Your task to perform on an android device: What's on my calendar today? Image 0: 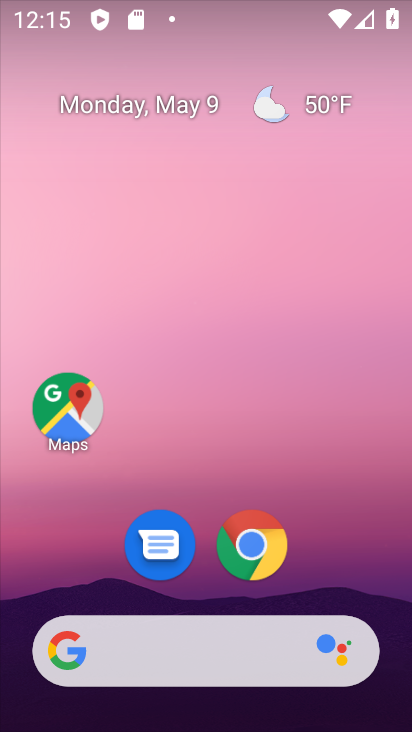
Step 0: drag from (193, 570) to (193, 149)
Your task to perform on an android device: What's on my calendar today? Image 1: 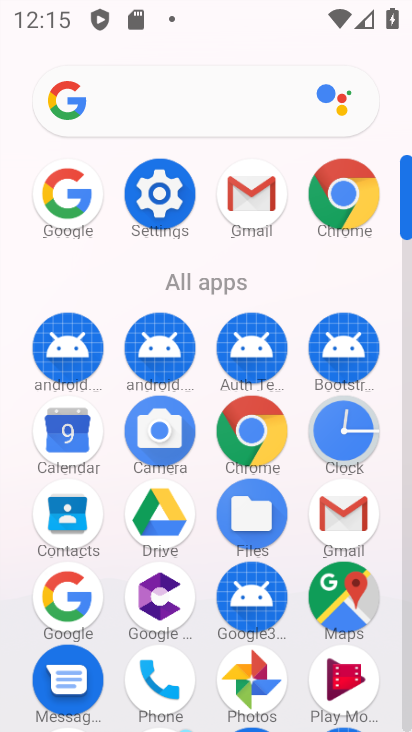
Step 1: drag from (276, 585) to (273, 272)
Your task to perform on an android device: What's on my calendar today? Image 2: 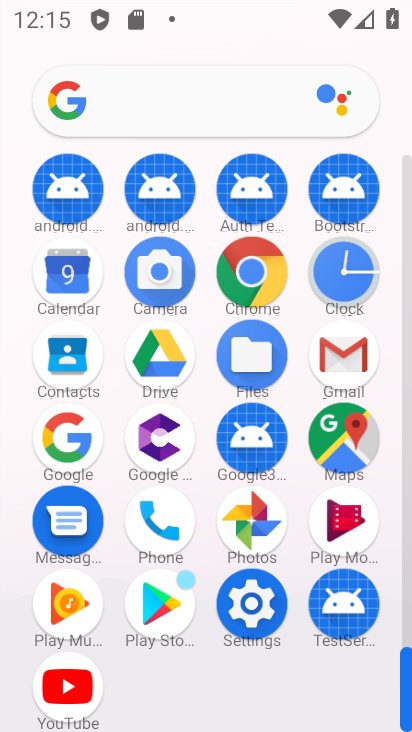
Step 2: drag from (193, 320) to (218, 552)
Your task to perform on an android device: What's on my calendar today? Image 3: 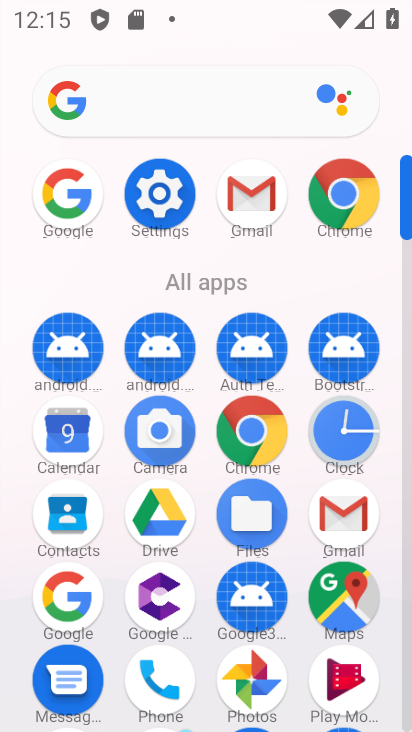
Step 3: drag from (196, 318) to (200, 563)
Your task to perform on an android device: What's on my calendar today? Image 4: 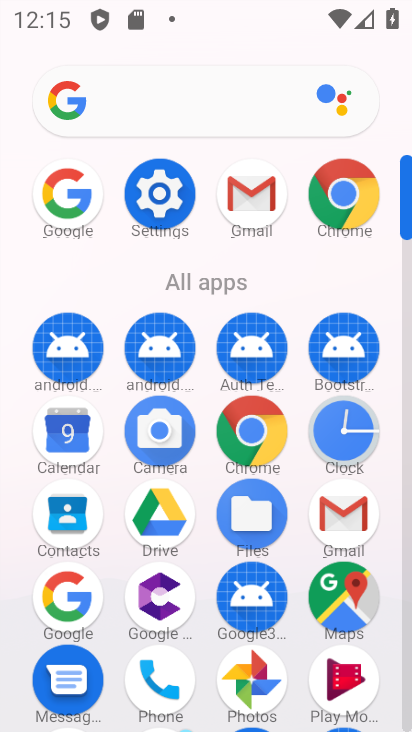
Step 4: drag from (184, 614) to (213, 324)
Your task to perform on an android device: What's on my calendar today? Image 5: 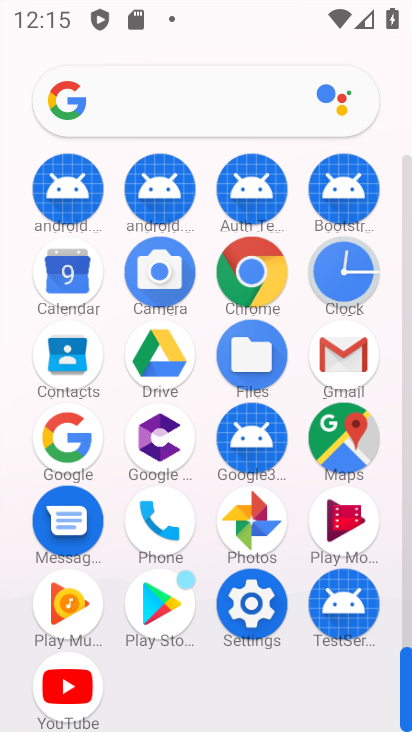
Step 5: drag from (199, 288) to (210, 514)
Your task to perform on an android device: What's on my calendar today? Image 6: 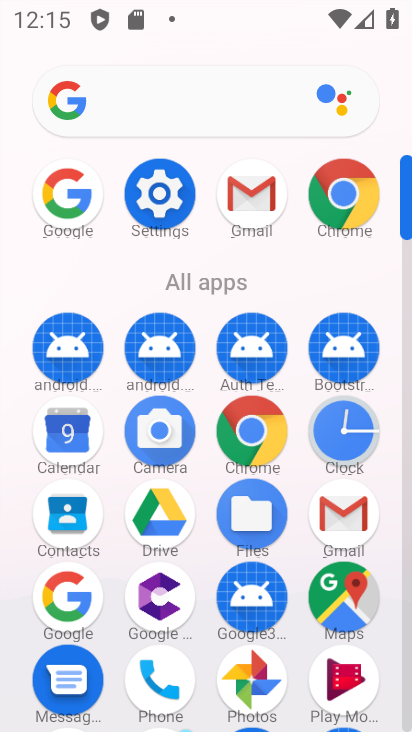
Step 6: drag from (209, 323) to (232, 383)
Your task to perform on an android device: What's on my calendar today? Image 7: 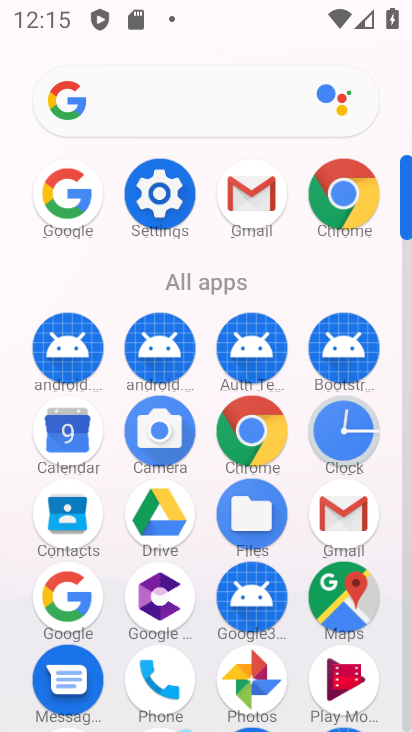
Step 7: click (45, 491)
Your task to perform on an android device: What's on my calendar today? Image 8: 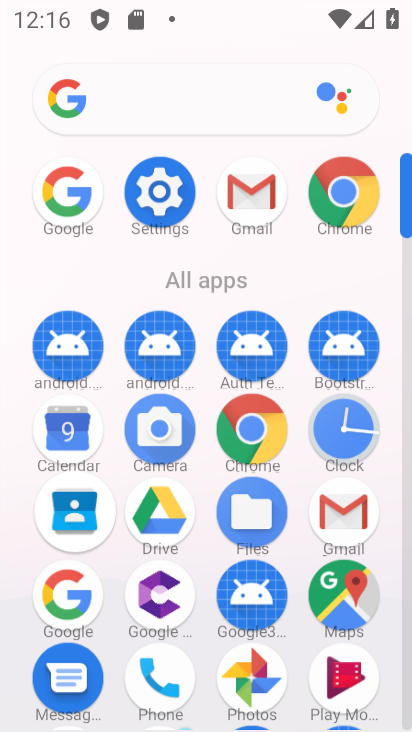
Step 8: click (47, 457)
Your task to perform on an android device: What's on my calendar today? Image 9: 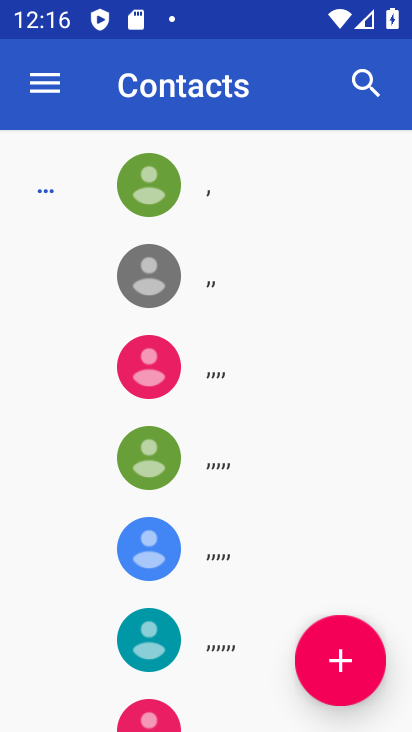
Step 9: press back button
Your task to perform on an android device: What's on my calendar today? Image 10: 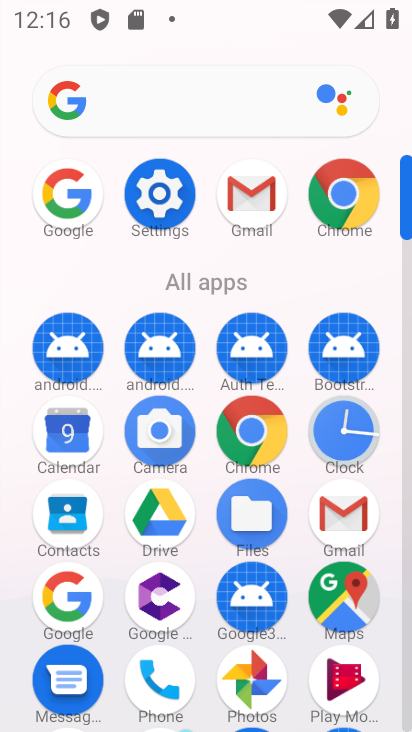
Step 10: click (38, 429)
Your task to perform on an android device: What's on my calendar today? Image 11: 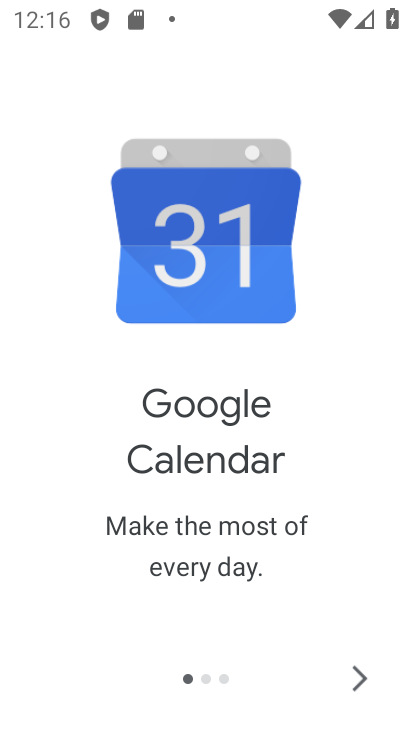
Step 11: click (364, 696)
Your task to perform on an android device: What's on my calendar today? Image 12: 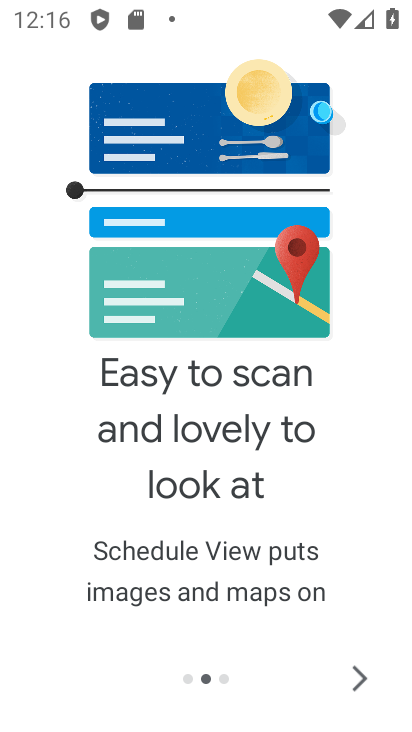
Step 12: click (363, 687)
Your task to perform on an android device: What's on my calendar today? Image 13: 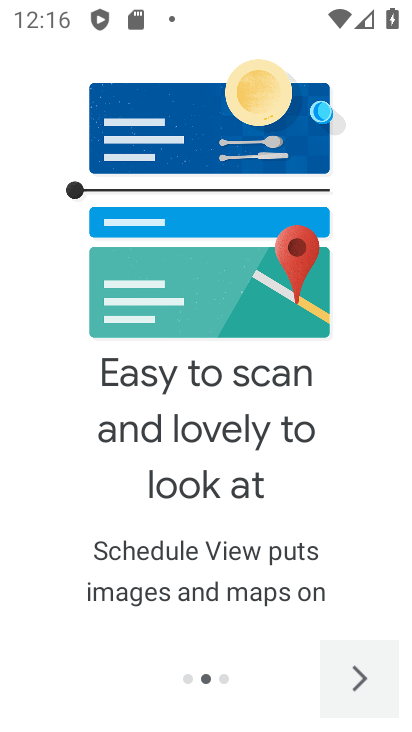
Step 13: click (365, 687)
Your task to perform on an android device: What's on my calendar today? Image 14: 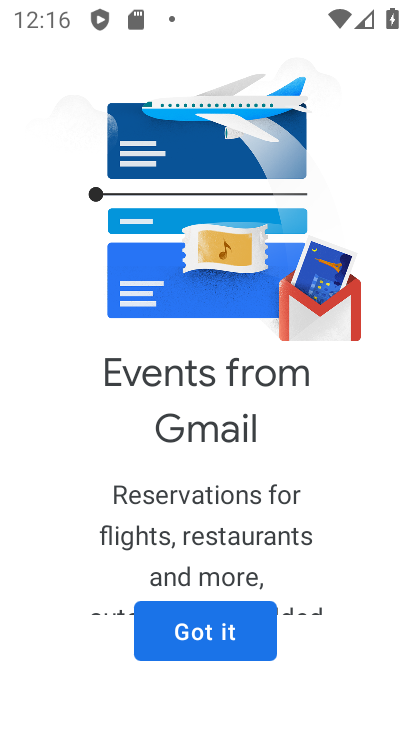
Step 14: click (195, 633)
Your task to perform on an android device: What's on my calendar today? Image 15: 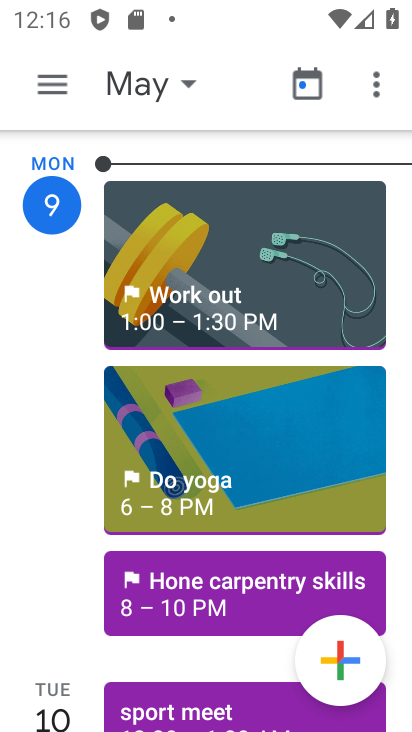
Step 15: click (160, 90)
Your task to perform on an android device: What's on my calendar today? Image 16: 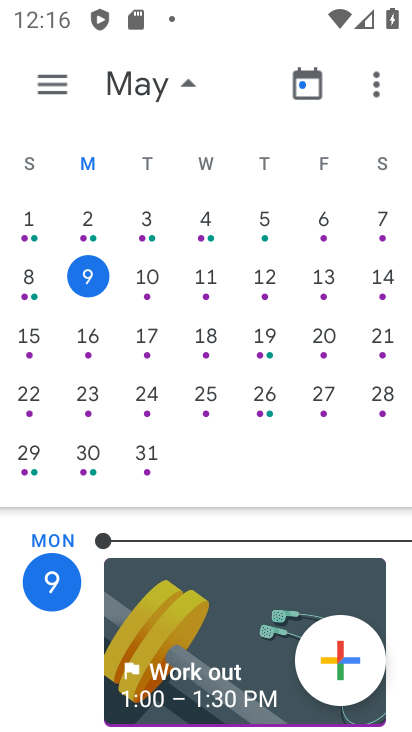
Step 16: task complete